Your task to perform on an android device: all mails in gmail Image 0: 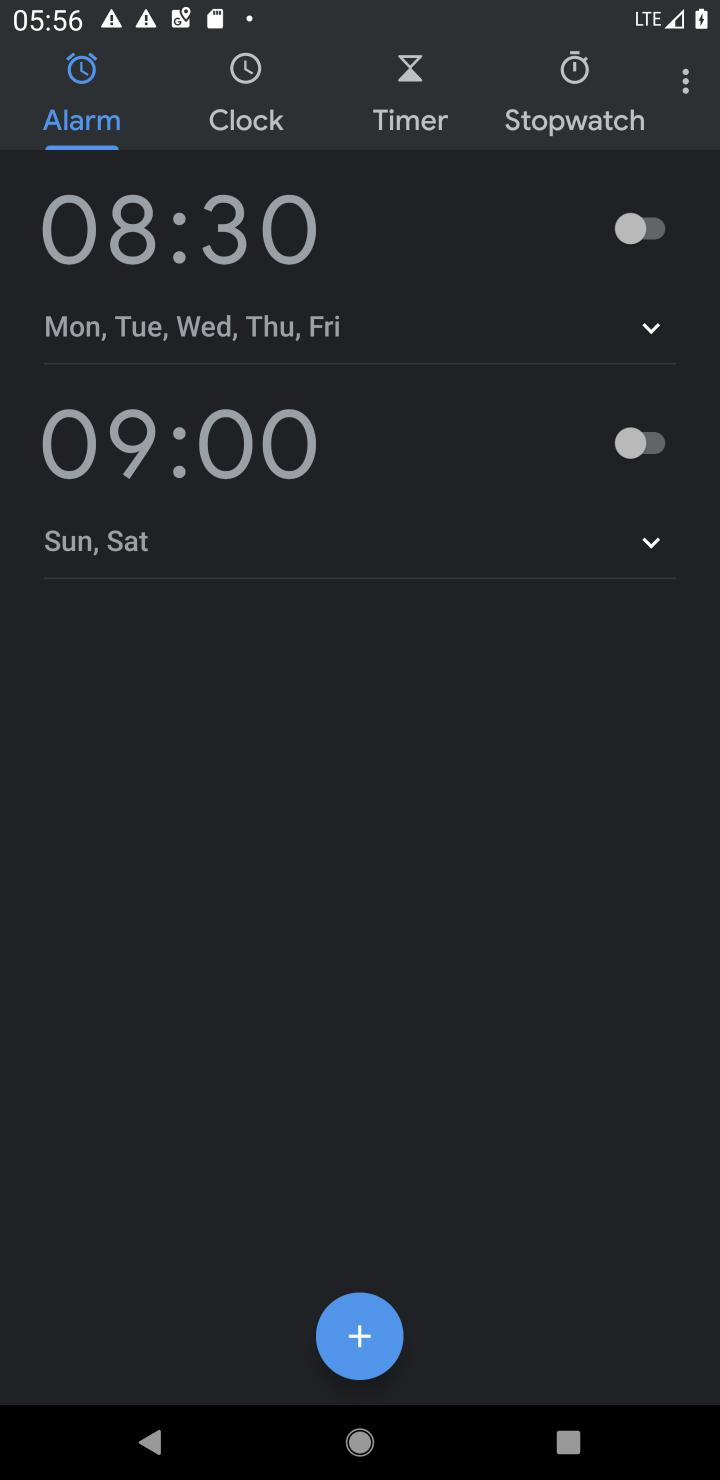
Step 0: press home button
Your task to perform on an android device: all mails in gmail Image 1: 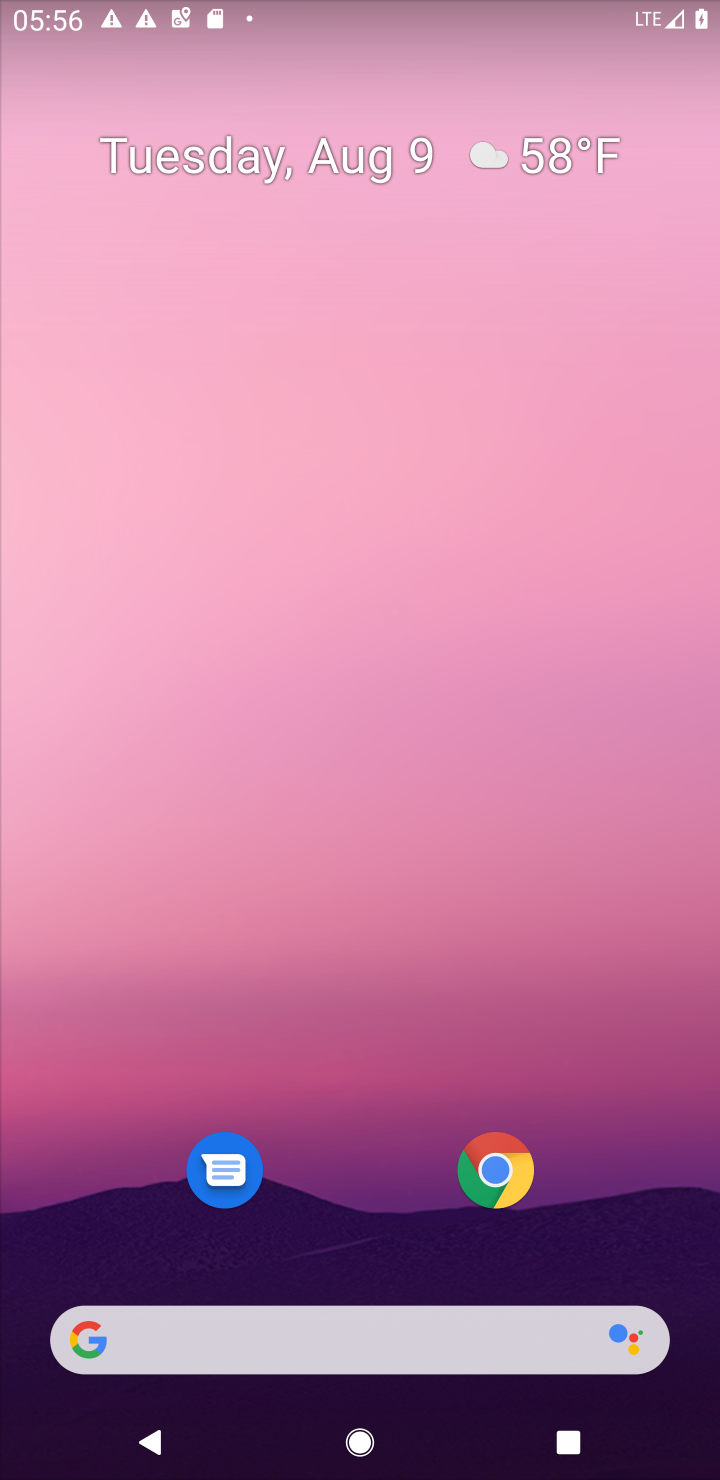
Step 1: drag from (383, 1252) to (396, 10)
Your task to perform on an android device: all mails in gmail Image 2: 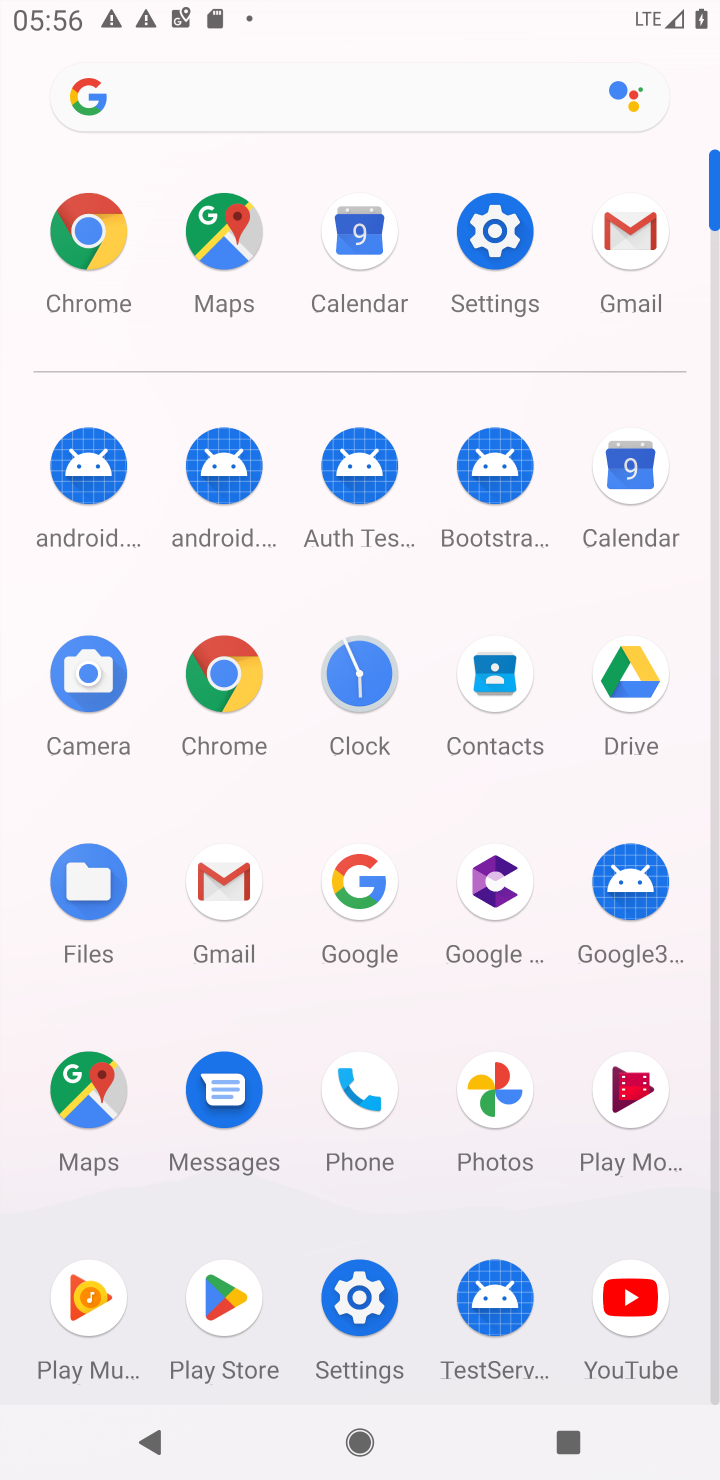
Step 2: click (627, 244)
Your task to perform on an android device: all mails in gmail Image 3: 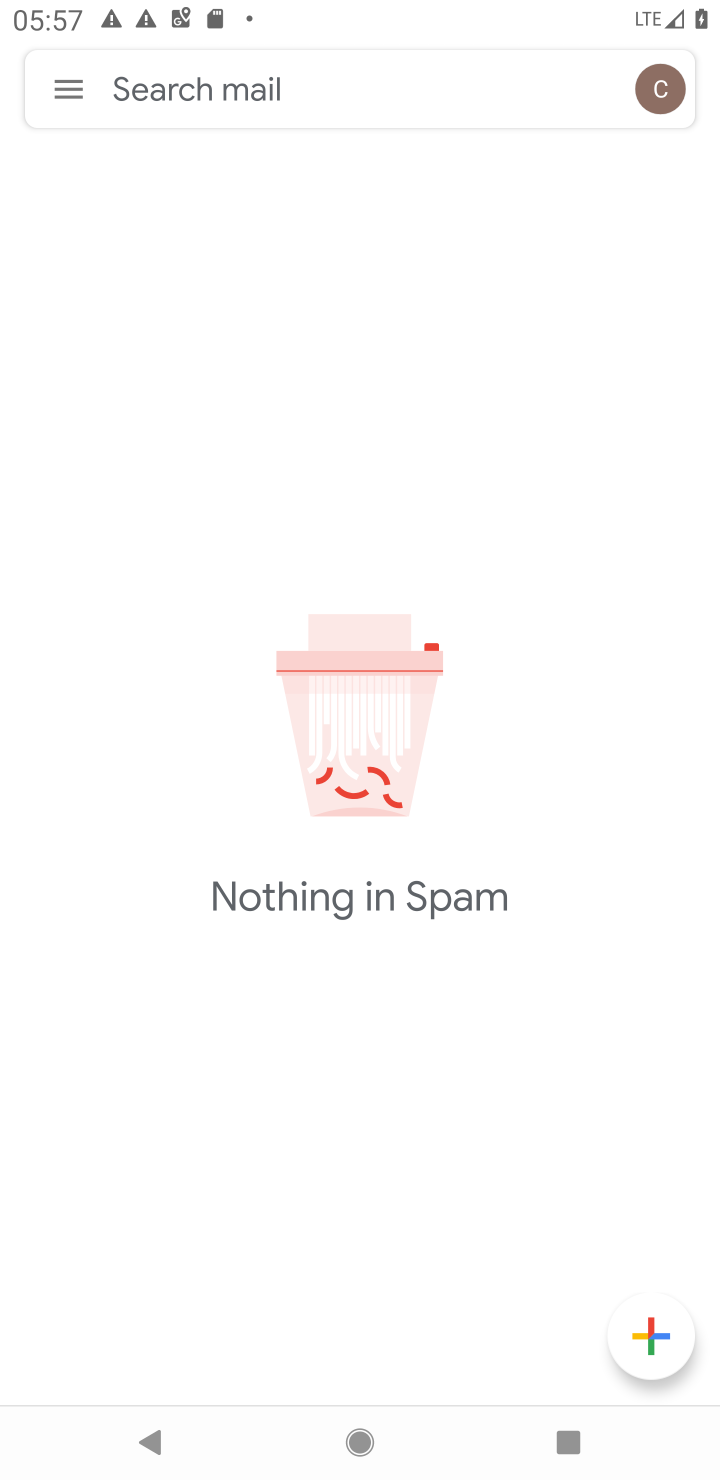
Step 3: click (75, 86)
Your task to perform on an android device: all mails in gmail Image 4: 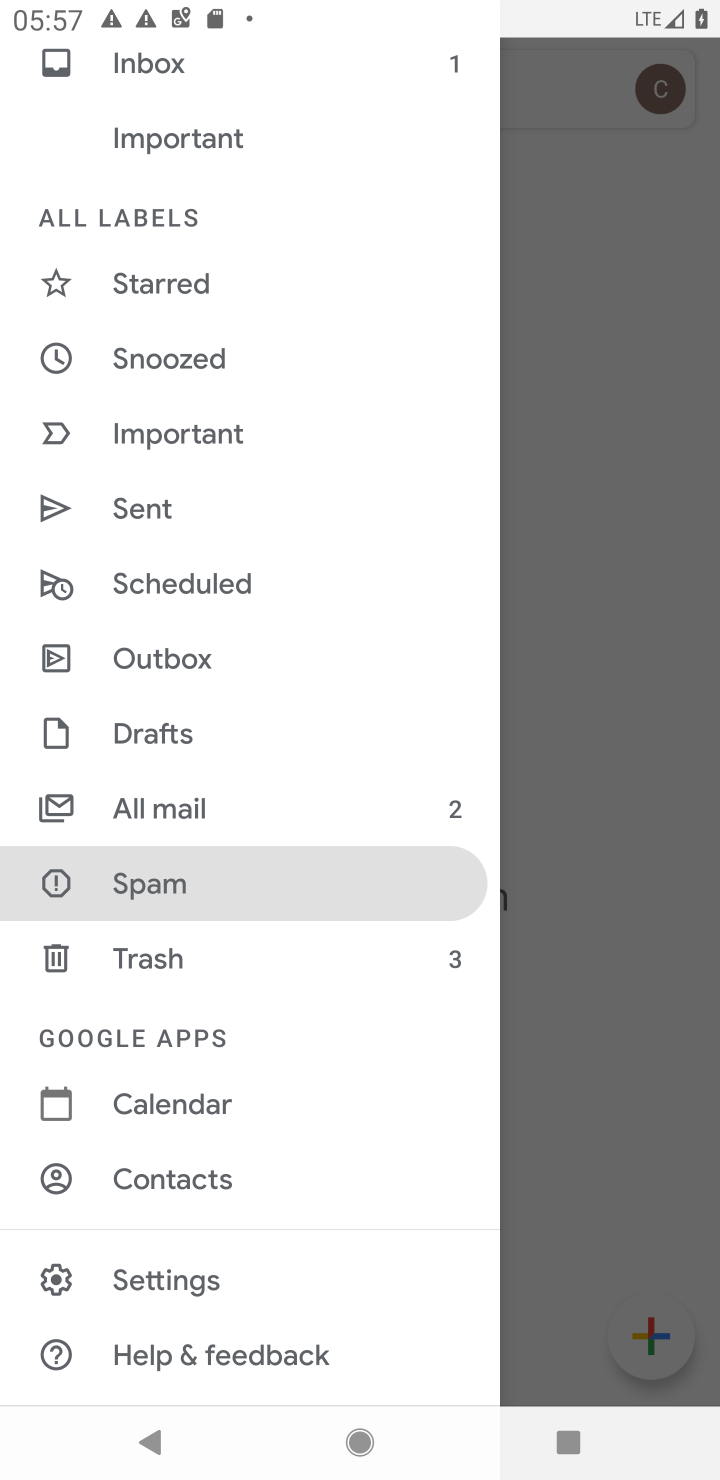
Step 4: click (158, 817)
Your task to perform on an android device: all mails in gmail Image 5: 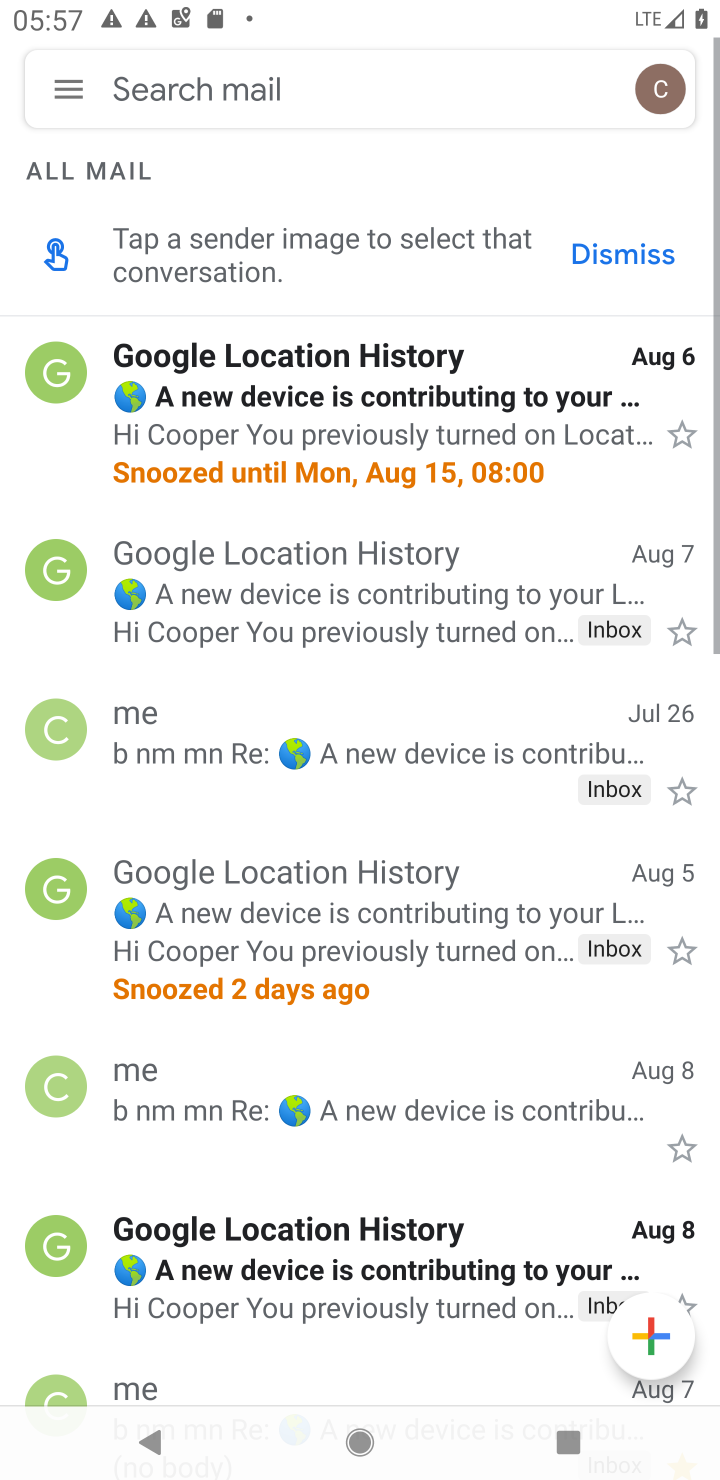
Step 5: task complete